Your task to perform on an android device: Open the phone app and click the voicemail tab. Image 0: 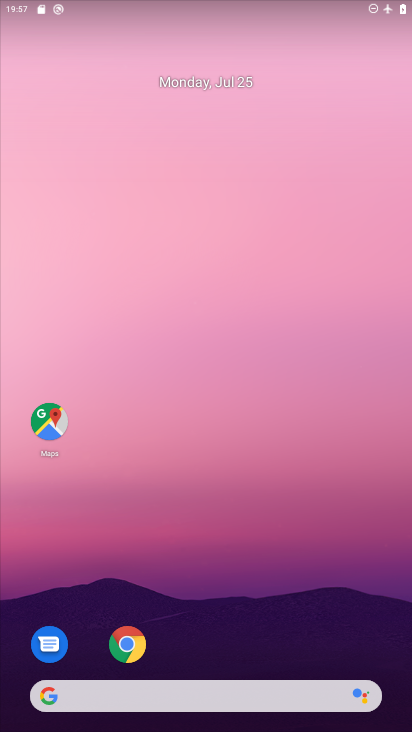
Step 0: drag from (225, 667) to (281, 9)
Your task to perform on an android device: Open the phone app and click the voicemail tab. Image 1: 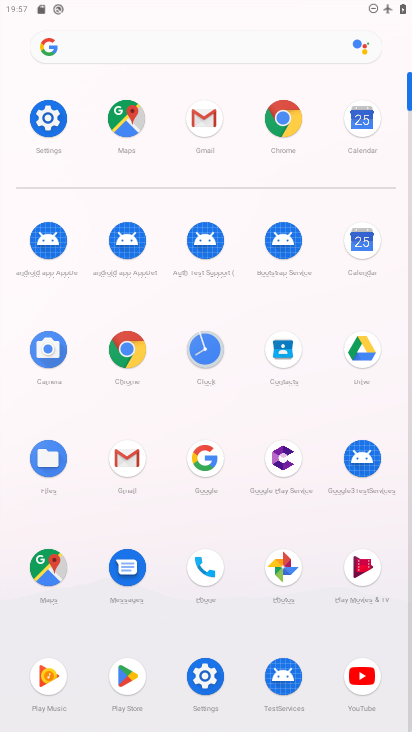
Step 1: click (195, 561)
Your task to perform on an android device: Open the phone app and click the voicemail tab. Image 2: 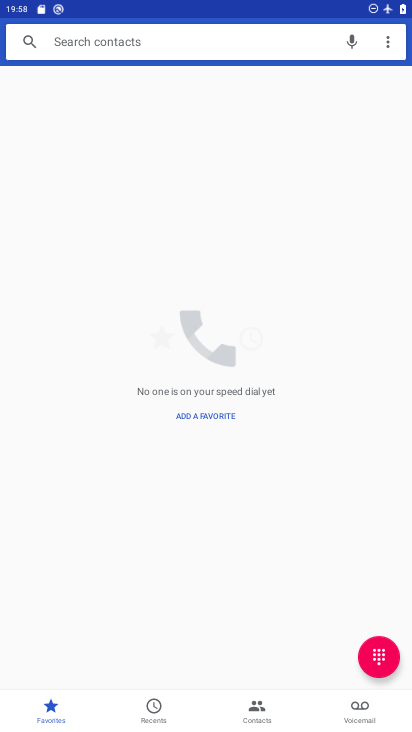
Step 2: click (367, 712)
Your task to perform on an android device: Open the phone app and click the voicemail tab. Image 3: 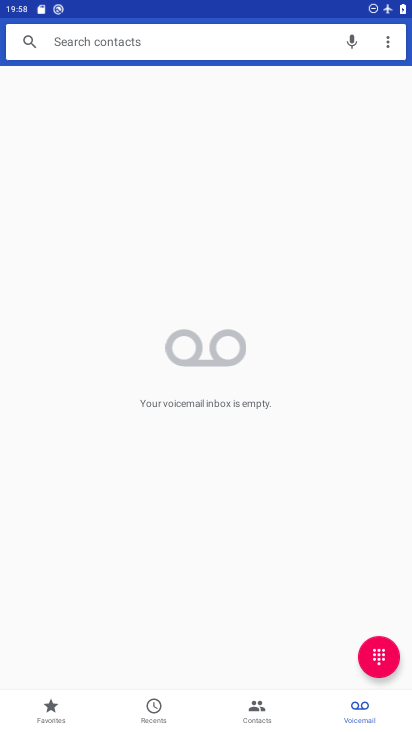
Step 3: task complete